Your task to perform on an android device: Open Yahoo.com Image 0: 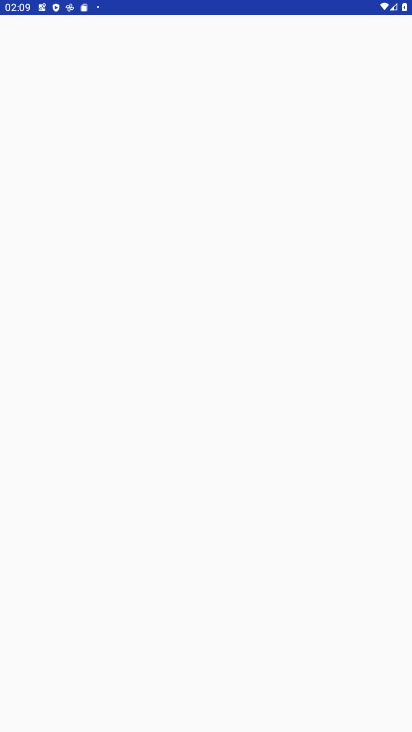
Step 0: press home button
Your task to perform on an android device: Open Yahoo.com Image 1: 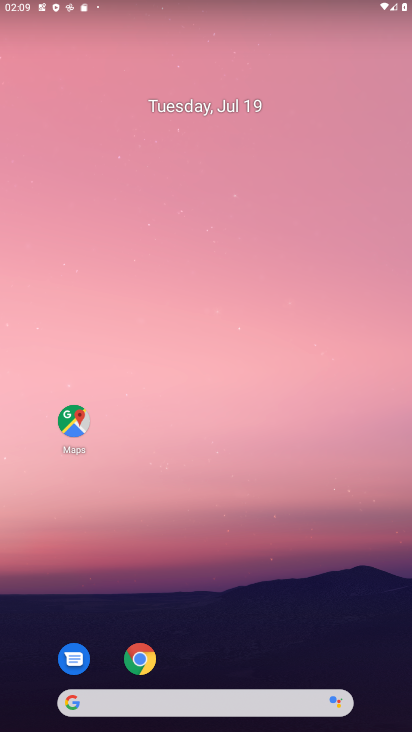
Step 1: click (145, 655)
Your task to perform on an android device: Open Yahoo.com Image 2: 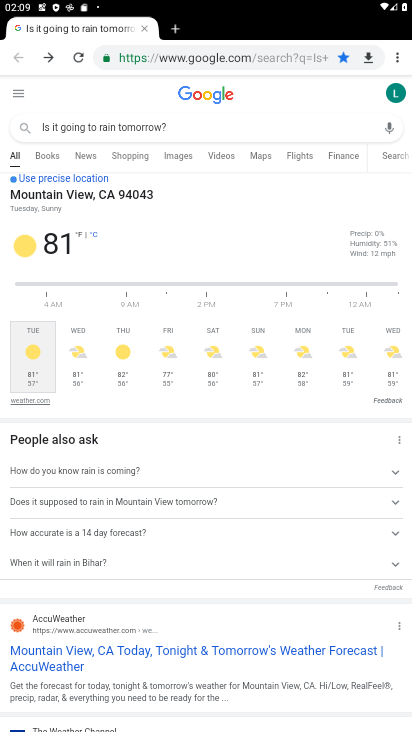
Step 2: click (166, 57)
Your task to perform on an android device: Open Yahoo.com Image 3: 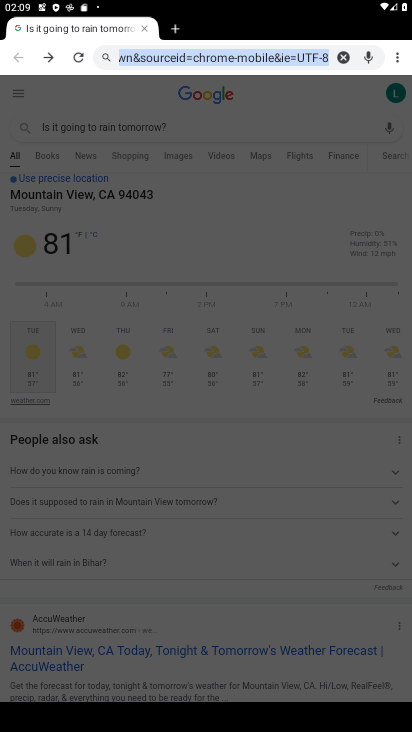
Step 3: type "Yahoo.com"
Your task to perform on an android device: Open Yahoo.com Image 4: 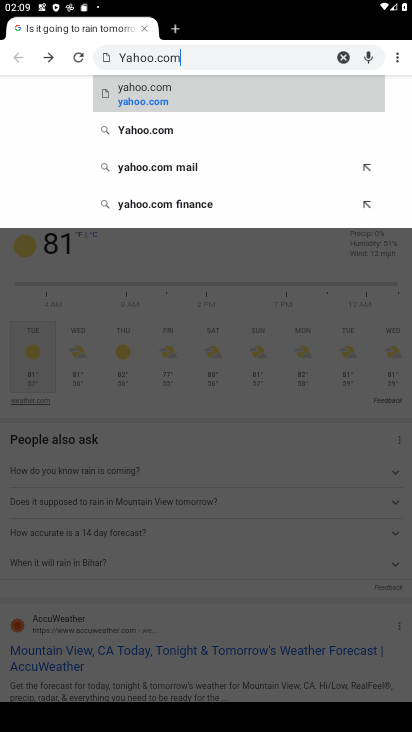
Step 4: type ""
Your task to perform on an android device: Open Yahoo.com Image 5: 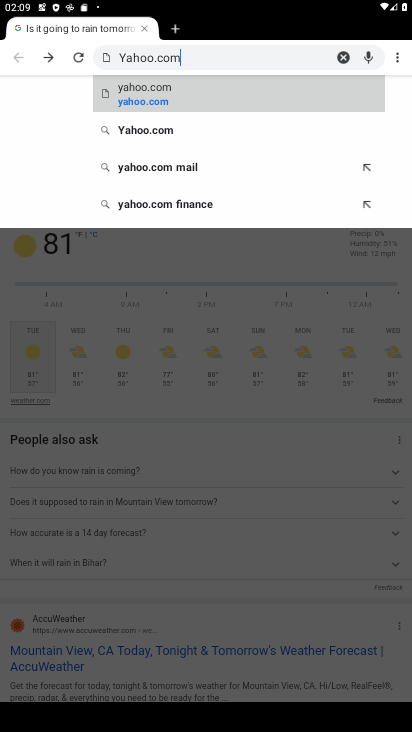
Step 5: click (254, 89)
Your task to perform on an android device: Open Yahoo.com Image 6: 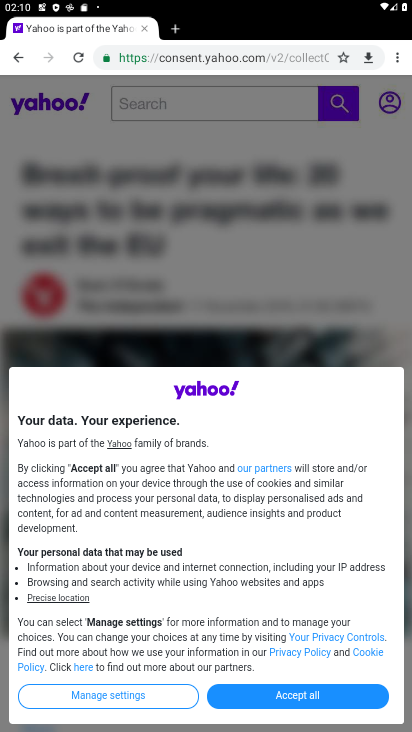
Step 6: task complete